Your task to perform on an android device: What's the latest video from Gameranx? Image 0: 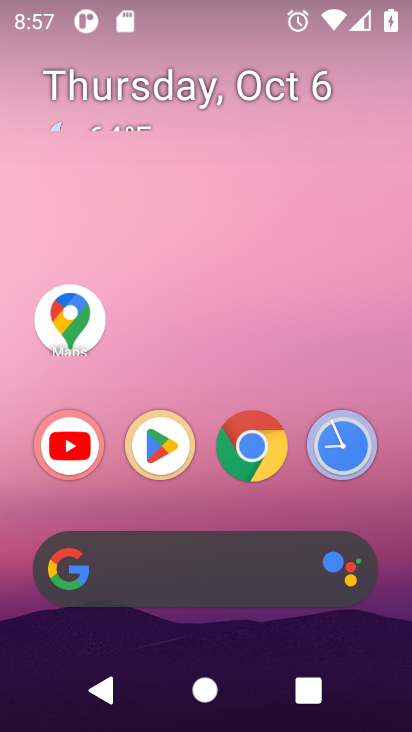
Step 0: click (147, 568)
Your task to perform on an android device: What's the latest video from Gameranx? Image 1: 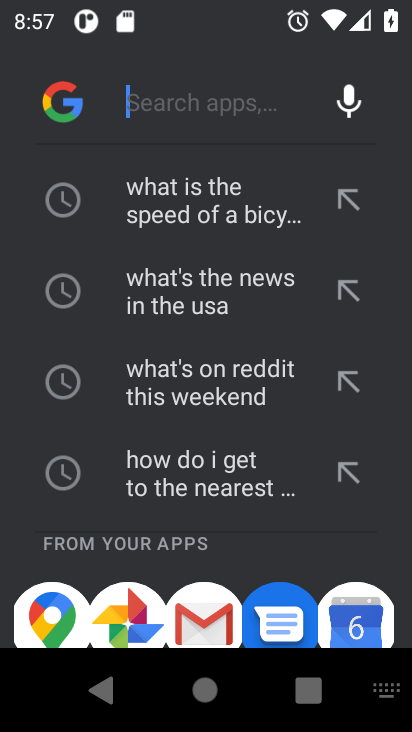
Step 1: type " latest video from Gameranx"
Your task to perform on an android device: What's the latest video from Gameranx? Image 2: 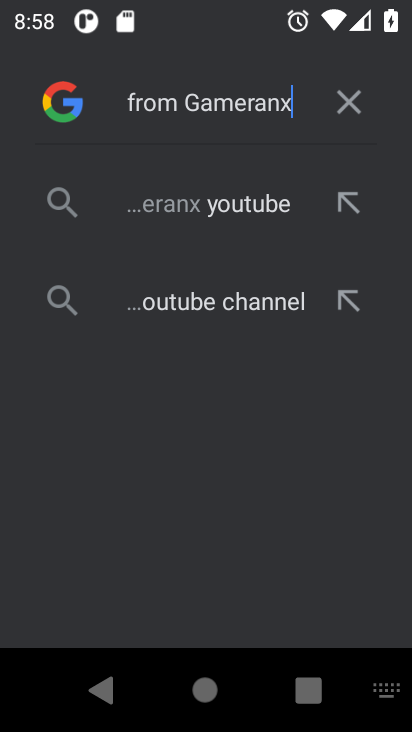
Step 2: task complete